Your task to perform on an android device: set the stopwatch Image 0: 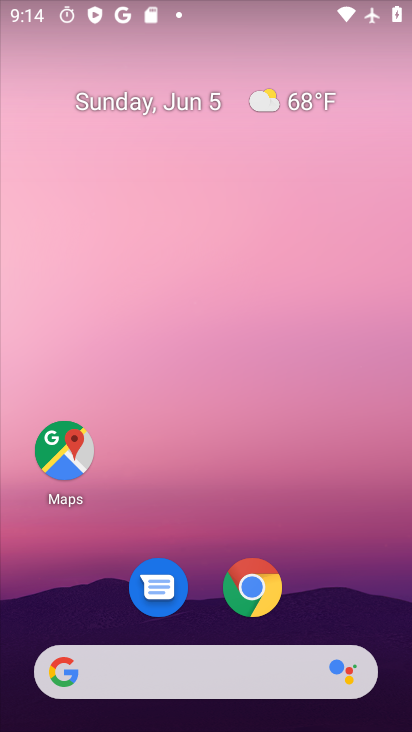
Step 0: drag from (290, 587) to (180, 43)
Your task to perform on an android device: set the stopwatch Image 1: 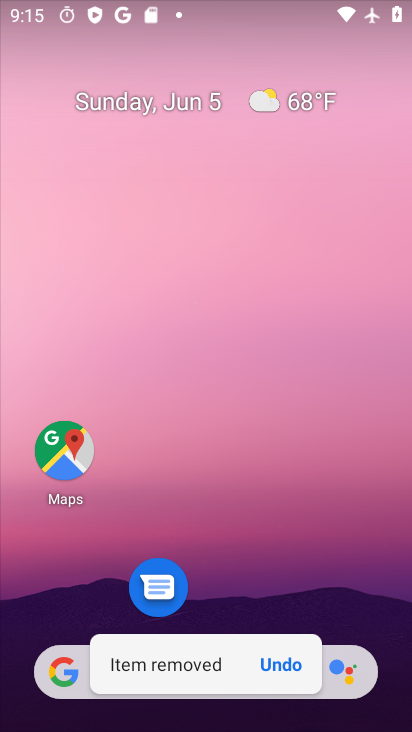
Step 1: drag from (275, 576) to (237, 59)
Your task to perform on an android device: set the stopwatch Image 2: 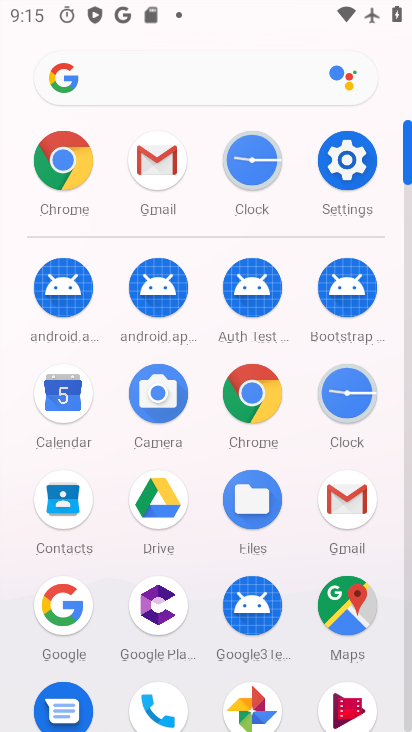
Step 2: click (360, 391)
Your task to perform on an android device: set the stopwatch Image 3: 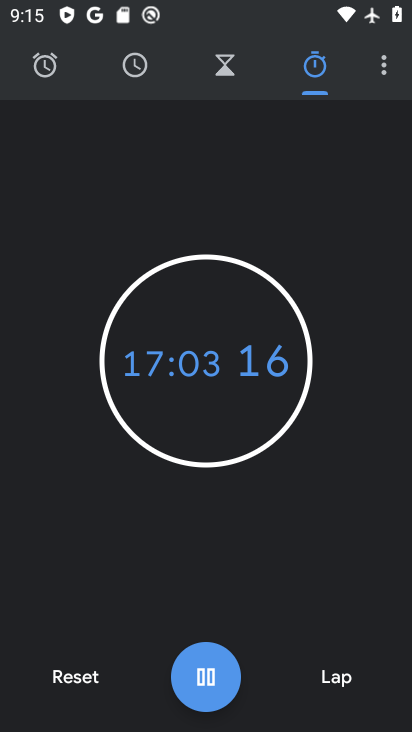
Step 3: click (108, 672)
Your task to perform on an android device: set the stopwatch Image 4: 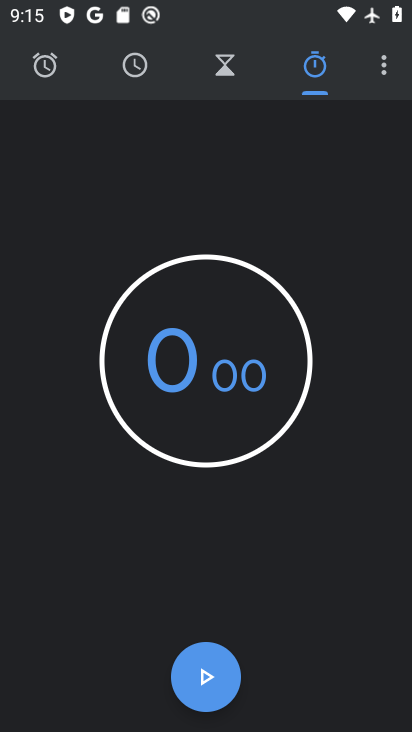
Step 4: click (94, 675)
Your task to perform on an android device: set the stopwatch Image 5: 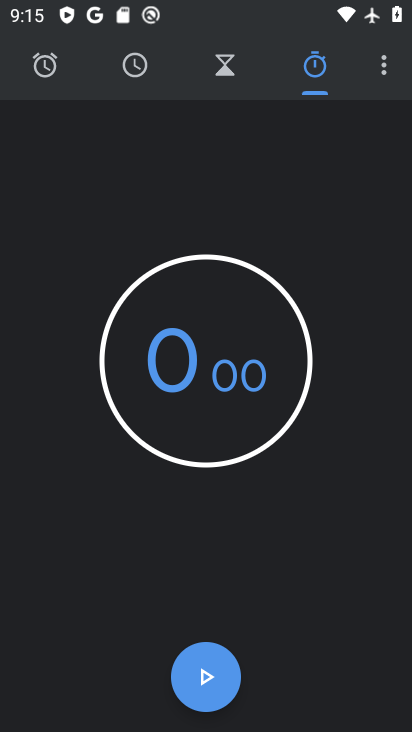
Step 5: click (187, 672)
Your task to perform on an android device: set the stopwatch Image 6: 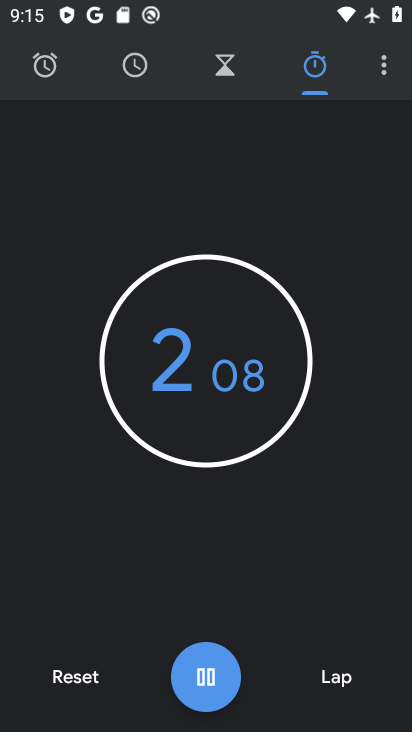
Step 6: task complete